Your task to perform on an android device: turn off location history Image 0: 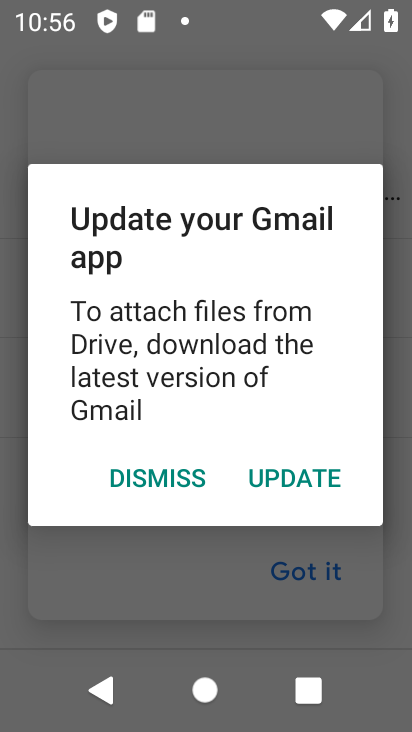
Step 0: press home button
Your task to perform on an android device: turn off location history Image 1: 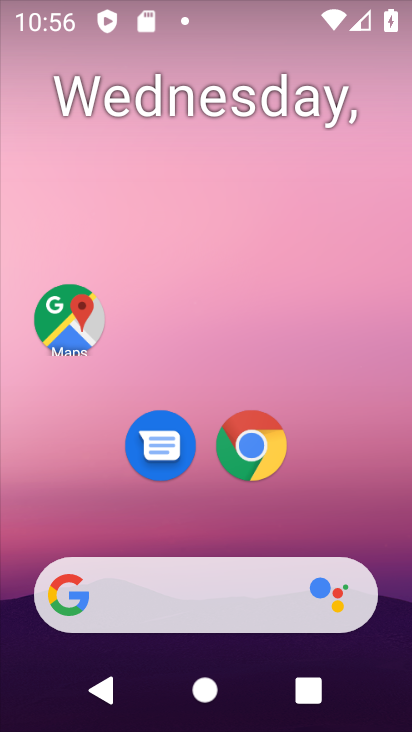
Step 1: drag from (230, 557) to (256, 210)
Your task to perform on an android device: turn off location history Image 2: 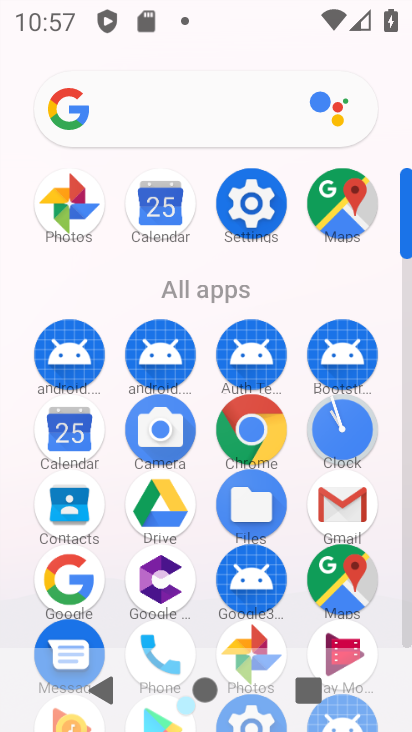
Step 2: click (251, 202)
Your task to perform on an android device: turn off location history Image 3: 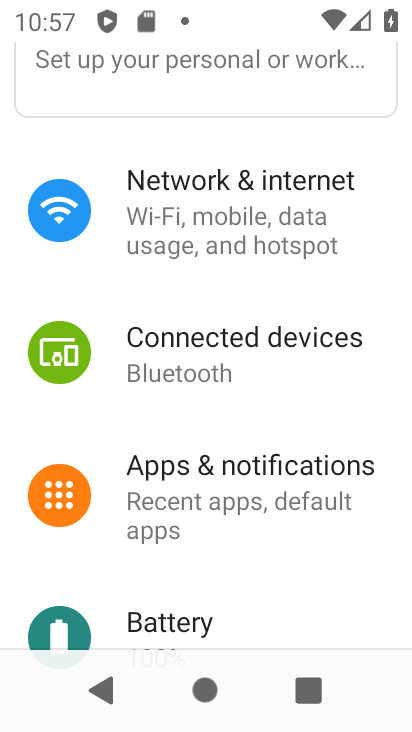
Step 3: drag from (217, 610) to (234, 222)
Your task to perform on an android device: turn off location history Image 4: 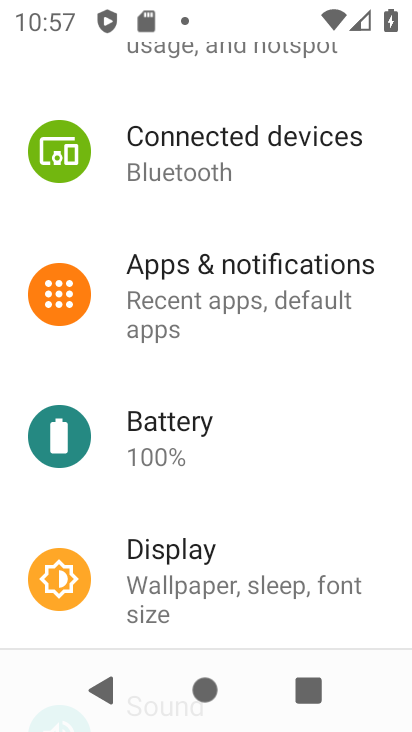
Step 4: drag from (224, 618) to (225, 287)
Your task to perform on an android device: turn off location history Image 5: 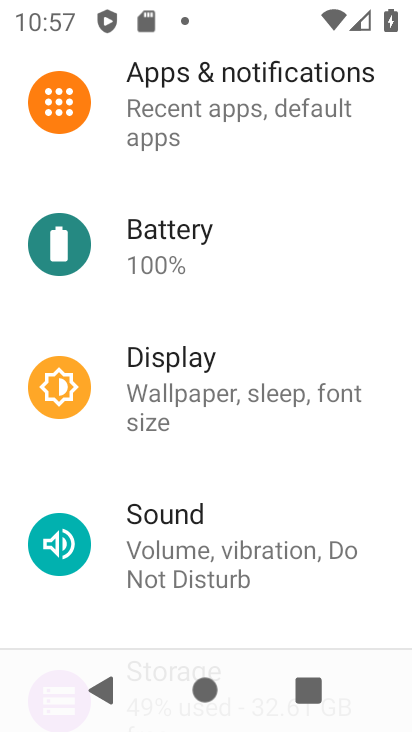
Step 5: drag from (220, 591) to (193, 168)
Your task to perform on an android device: turn off location history Image 6: 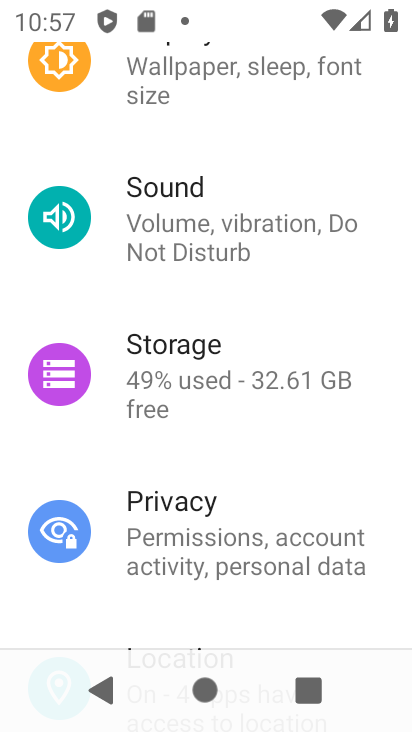
Step 6: drag from (221, 628) to (195, 309)
Your task to perform on an android device: turn off location history Image 7: 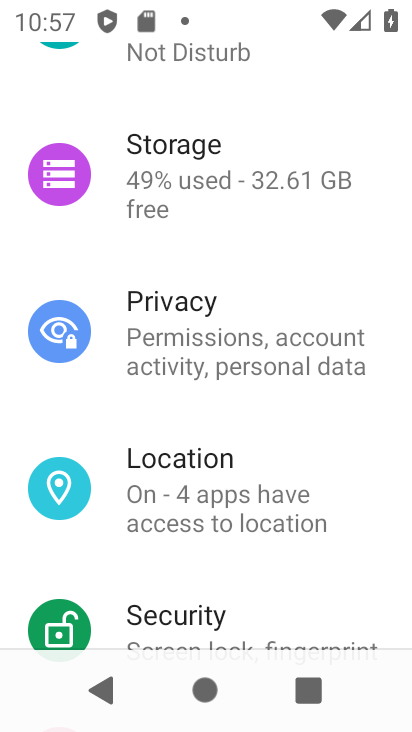
Step 7: click (201, 500)
Your task to perform on an android device: turn off location history Image 8: 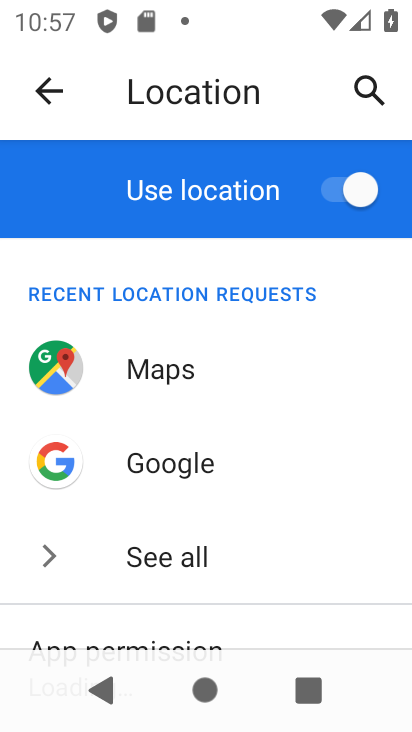
Step 8: drag from (276, 601) to (264, 116)
Your task to perform on an android device: turn off location history Image 9: 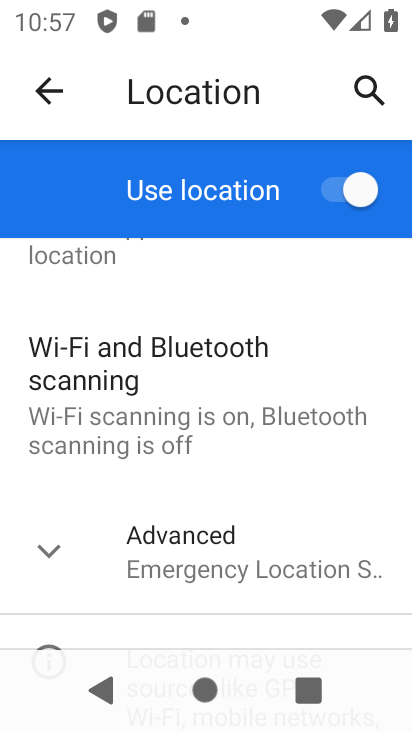
Step 9: drag from (238, 588) to (236, 307)
Your task to perform on an android device: turn off location history Image 10: 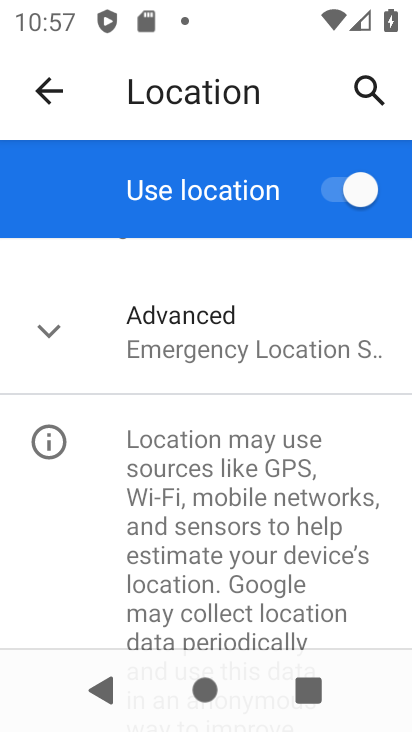
Step 10: click (207, 353)
Your task to perform on an android device: turn off location history Image 11: 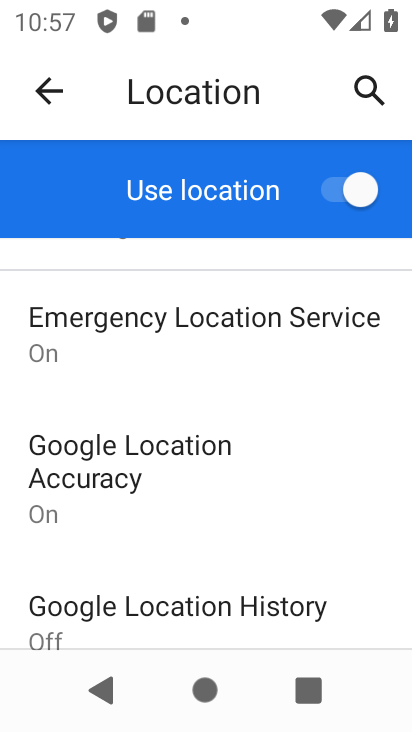
Step 11: click (171, 616)
Your task to perform on an android device: turn off location history Image 12: 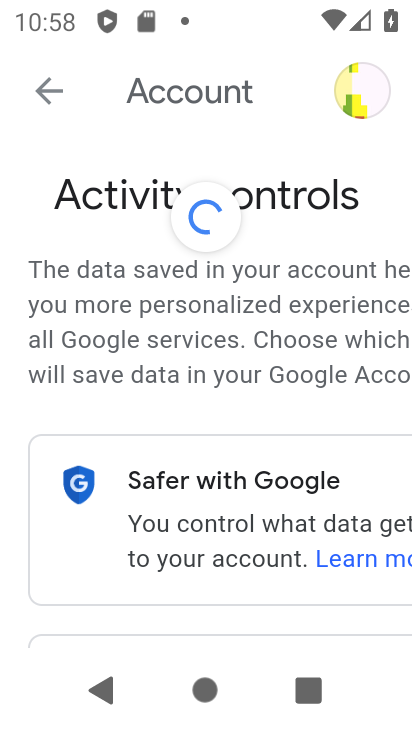
Step 12: drag from (264, 591) to (283, 150)
Your task to perform on an android device: turn off location history Image 13: 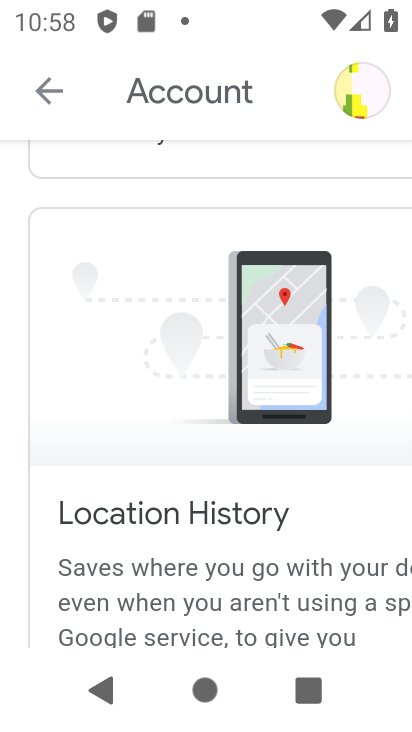
Step 13: drag from (355, 592) to (358, 175)
Your task to perform on an android device: turn off location history Image 14: 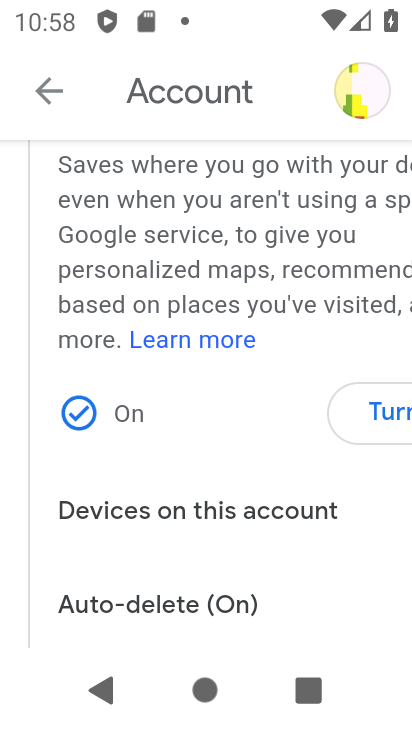
Step 14: click (392, 413)
Your task to perform on an android device: turn off location history Image 15: 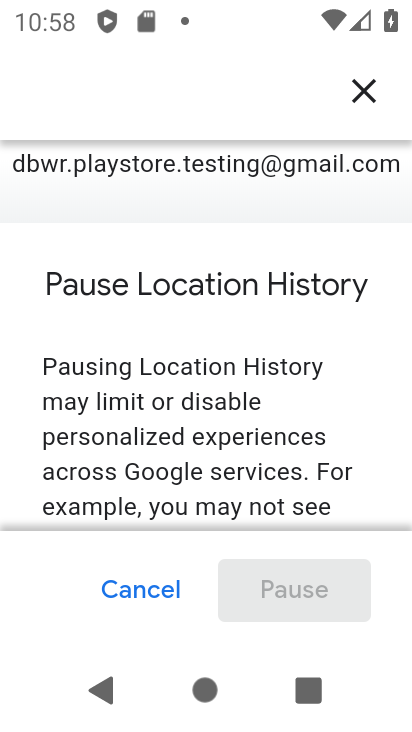
Step 15: drag from (319, 517) to (329, 206)
Your task to perform on an android device: turn off location history Image 16: 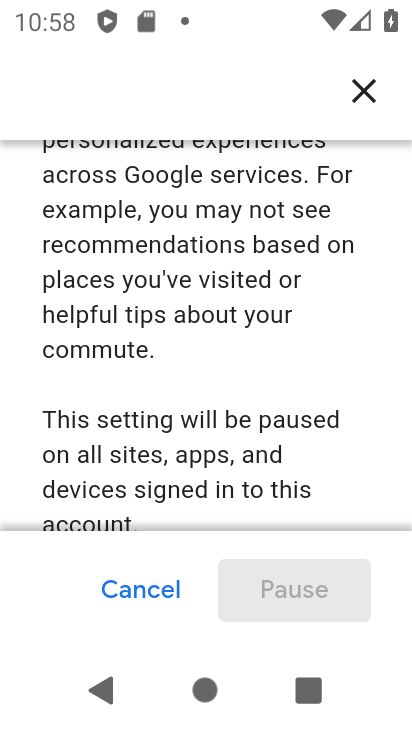
Step 16: drag from (309, 505) to (296, 156)
Your task to perform on an android device: turn off location history Image 17: 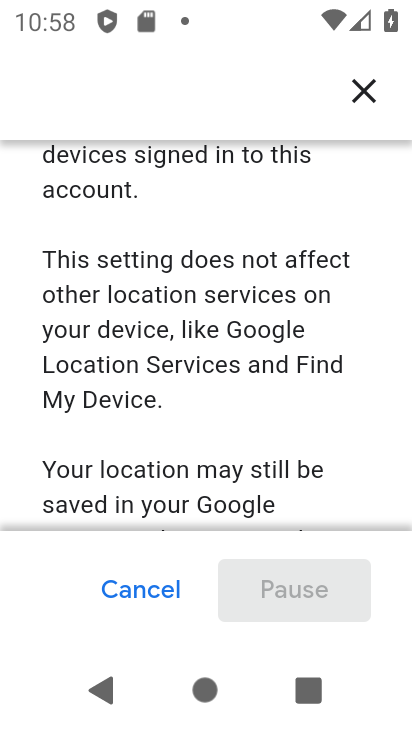
Step 17: drag from (314, 502) to (302, 150)
Your task to perform on an android device: turn off location history Image 18: 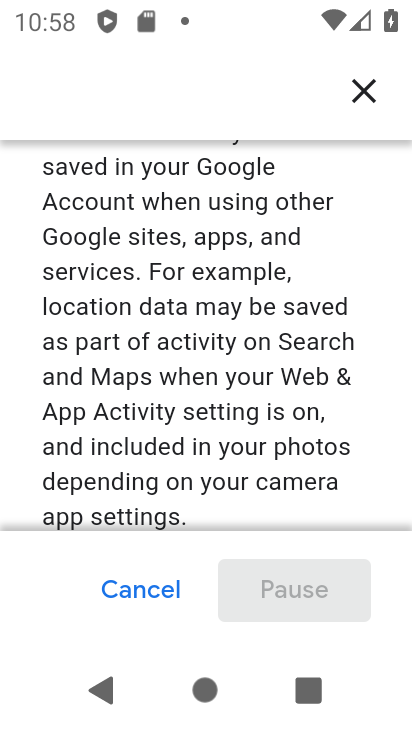
Step 18: drag from (270, 520) to (270, 193)
Your task to perform on an android device: turn off location history Image 19: 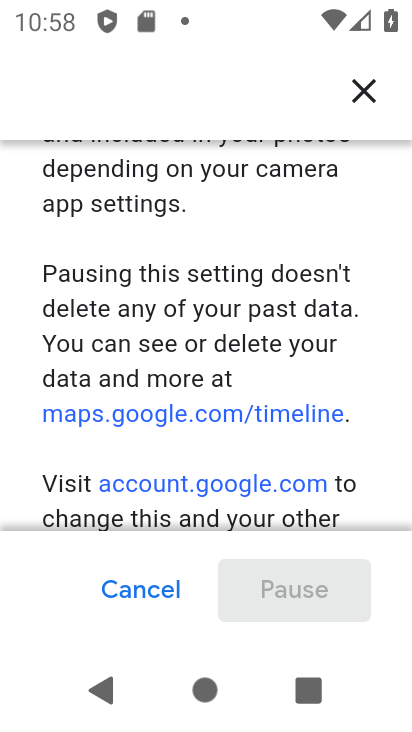
Step 19: drag from (282, 523) to (270, 247)
Your task to perform on an android device: turn off location history Image 20: 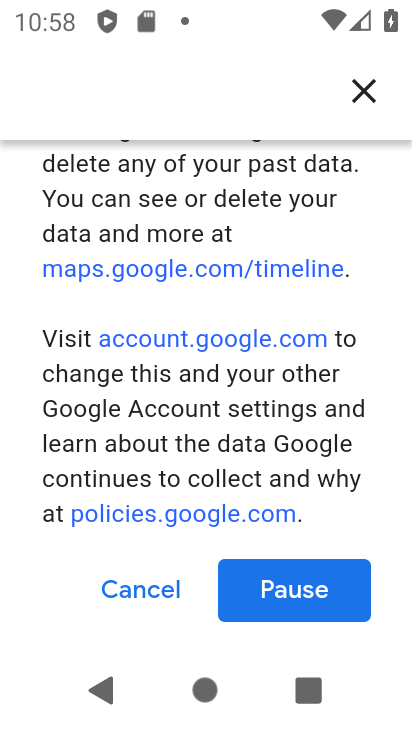
Step 20: click (297, 599)
Your task to perform on an android device: turn off location history Image 21: 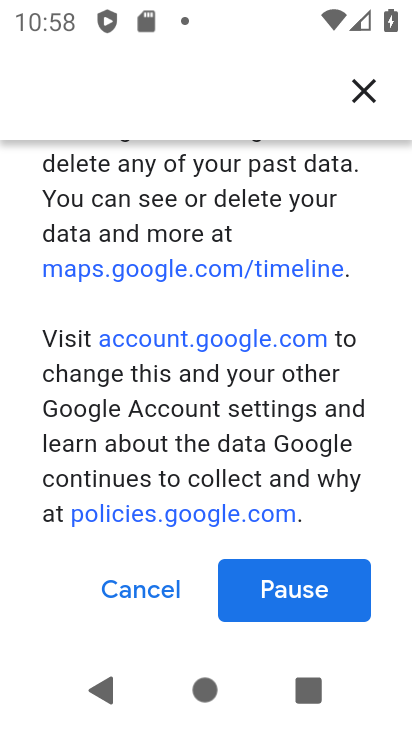
Step 21: click (297, 599)
Your task to perform on an android device: turn off location history Image 22: 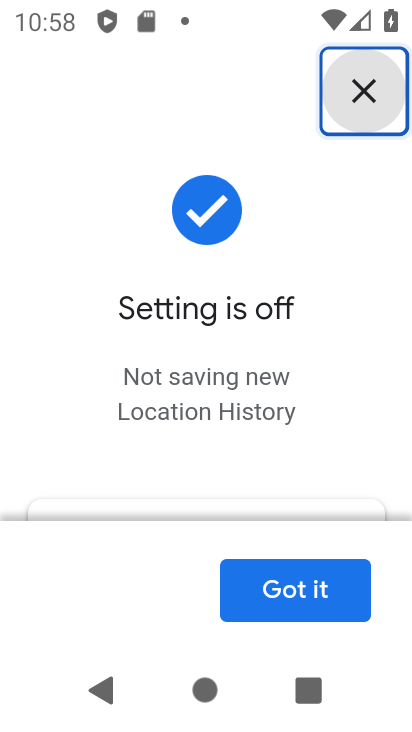
Step 22: click (297, 599)
Your task to perform on an android device: turn off location history Image 23: 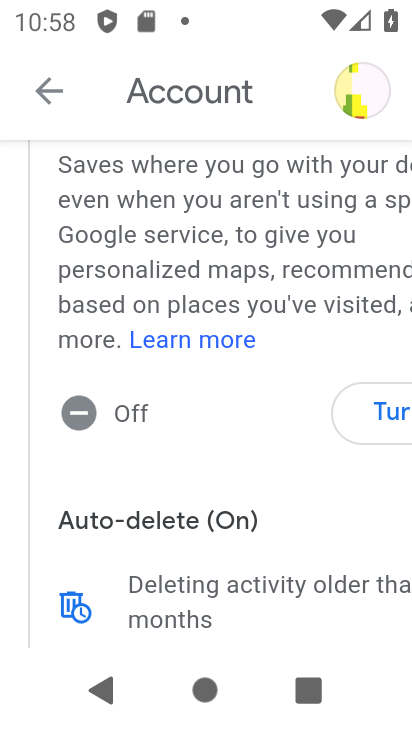
Step 23: task complete